Your task to perform on an android device: open sync settings in chrome Image 0: 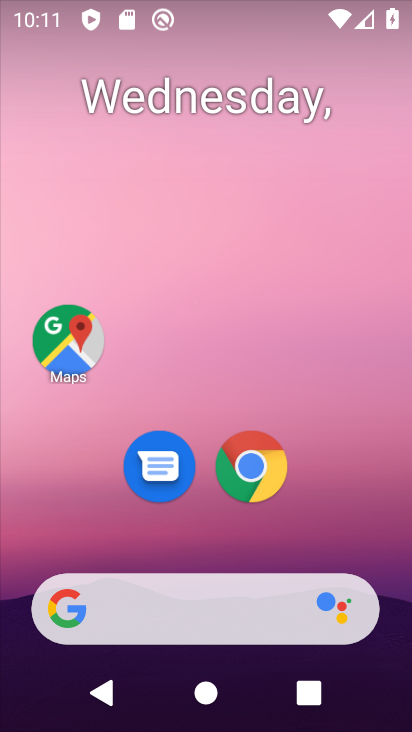
Step 0: click (250, 465)
Your task to perform on an android device: open sync settings in chrome Image 1: 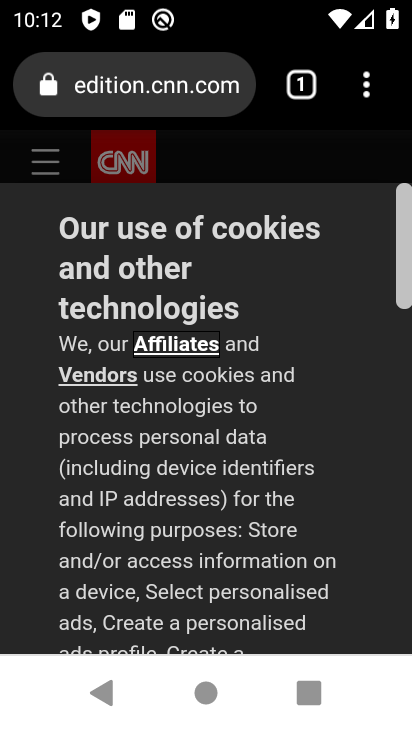
Step 1: click (368, 96)
Your task to perform on an android device: open sync settings in chrome Image 2: 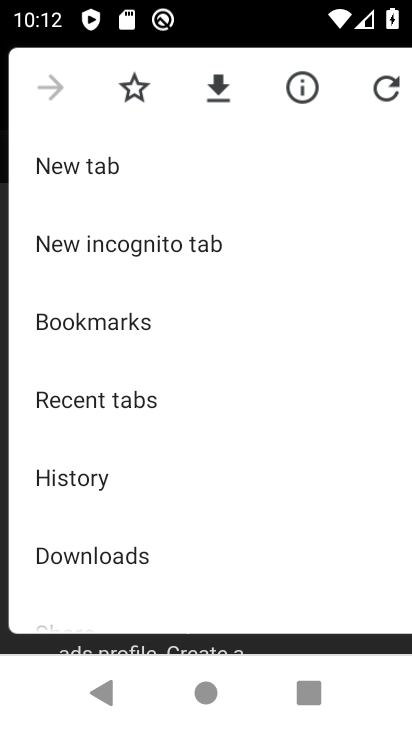
Step 2: drag from (153, 563) to (138, 272)
Your task to perform on an android device: open sync settings in chrome Image 3: 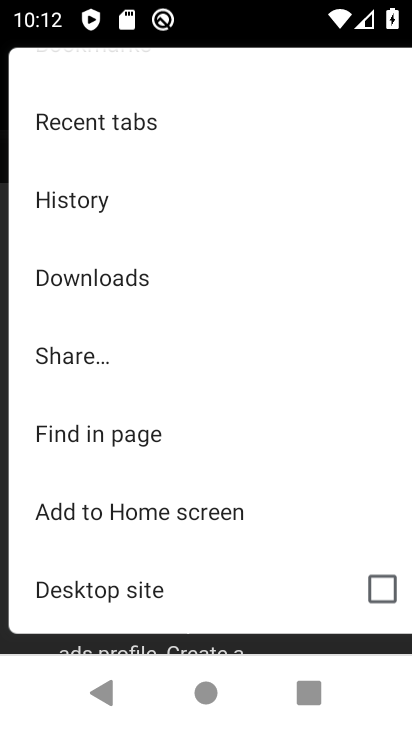
Step 3: drag from (90, 528) to (88, 241)
Your task to perform on an android device: open sync settings in chrome Image 4: 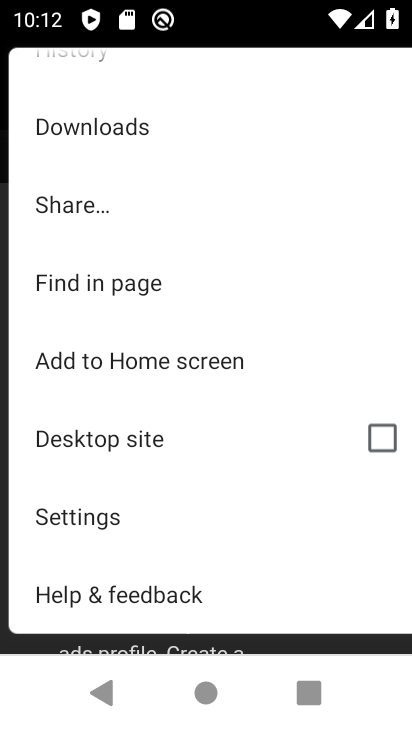
Step 4: click (81, 517)
Your task to perform on an android device: open sync settings in chrome Image 5: 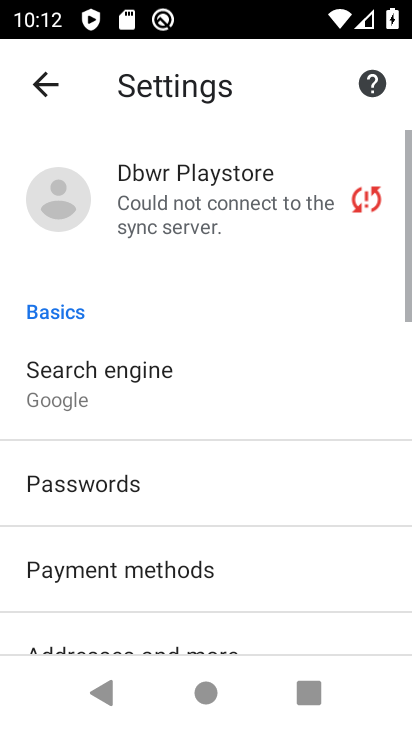
Step 5: drag from (142, 592) to (149, 200)
Your task to perform on an android device: open sync settings in chrome Image 6: 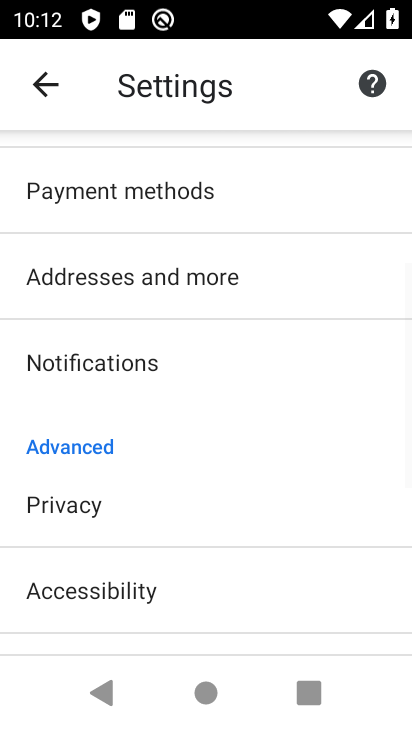
Step 6: drag from (122, 623) to (122, 266)
Your task to perform on an android device: open sync settings in chrome Image 7: 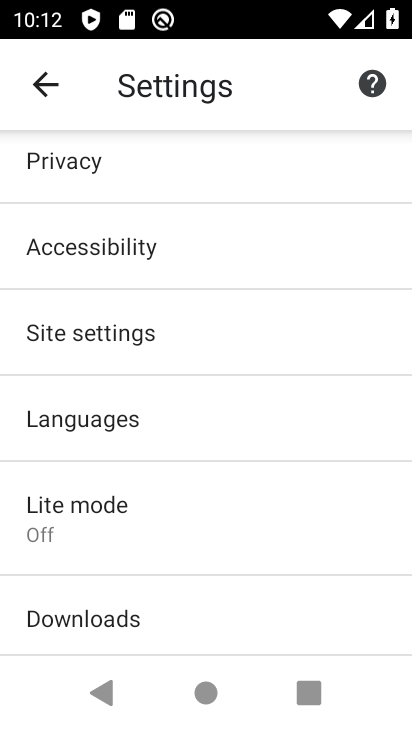
Step 7: click (96, 335)
Your task to perform on an android device: open sync settings in chrome Image 8: 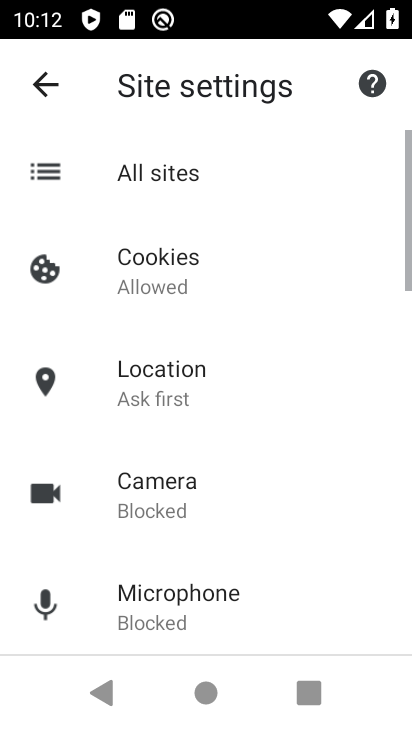
Step 8: drag from (133, 584) to (167, 238)
Your task to perform on an android device: open sync settings in chrome Image 9: 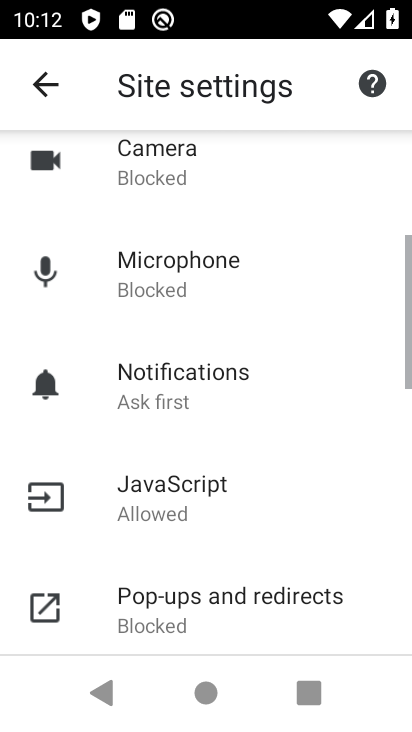
Step 9: drag from (175, 581) to (207, 270)
Your task to perform on an android device: open sync settings in chrome Image 10: 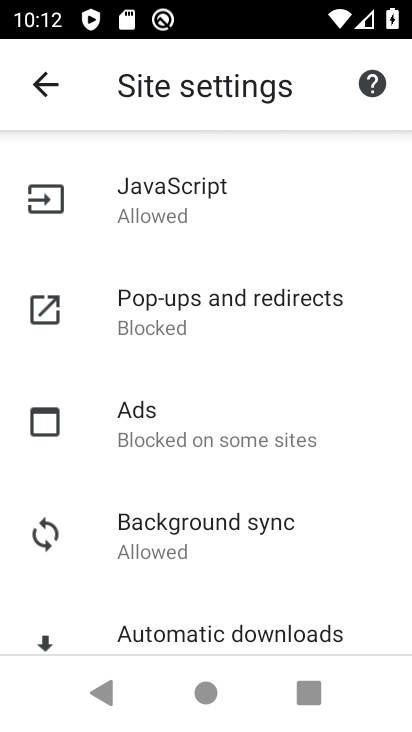
Step 10: click (144, 519)
Your task to perform on an android device: open sync settings in chrome Image 11: 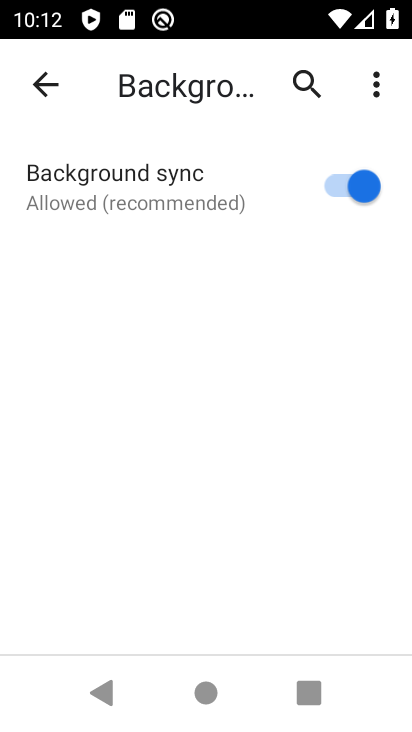
Step 11: task complete